Your task to perform on an android device: Open the calendar and show me this week's events? Image 0: 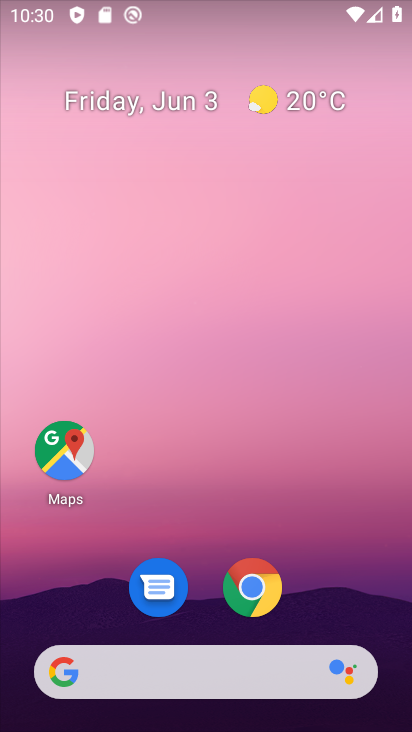
Step 0: drag from (313, 288) to (289, 80)
Your task to perform on an android device: Open the calendar and show me this week's events? Image 1: 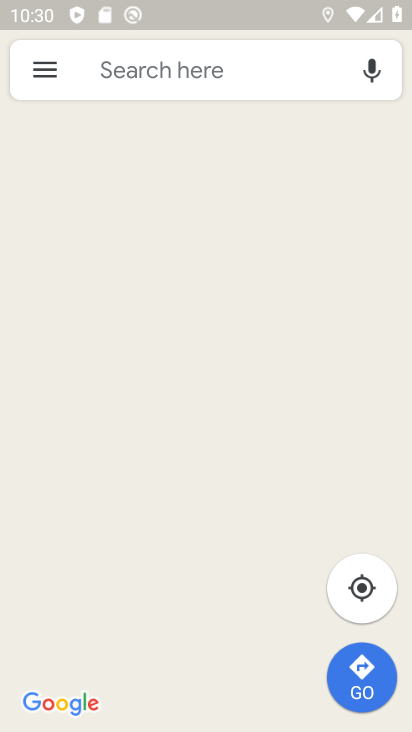
Step 1: press home button
Your task to perform on an android device: Open the calendar and show me this week's events? Image 2: 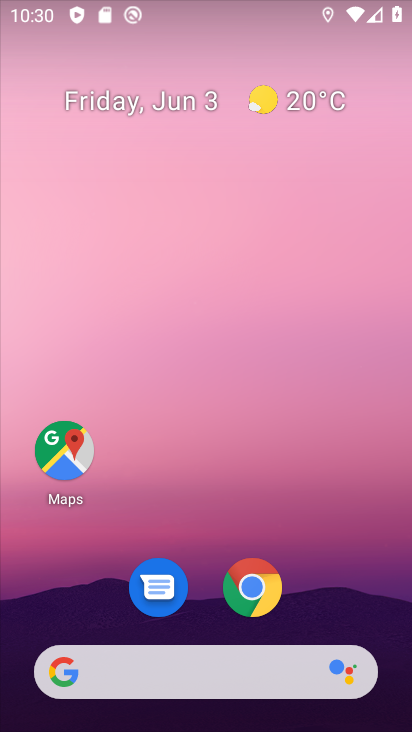
Step 2: drag from (336, 453) to (276, 26)
Your task to perform on an android device: Open the calendar and show me this week's events? Image 3: 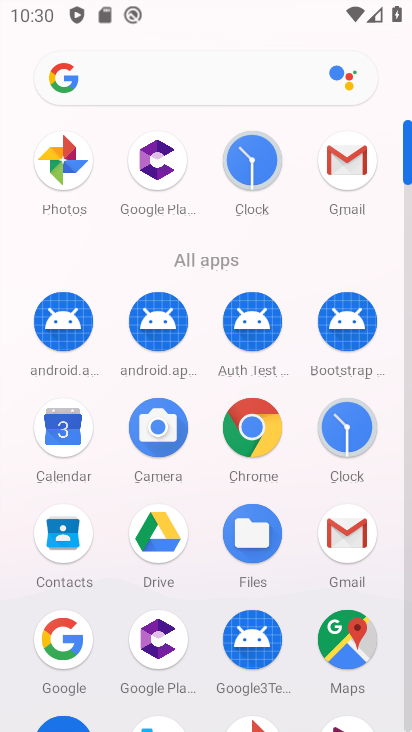
Step 3: click (74, 428)
Your task to perform on an android device: Open the calendar and show me this week's events? Image 4: 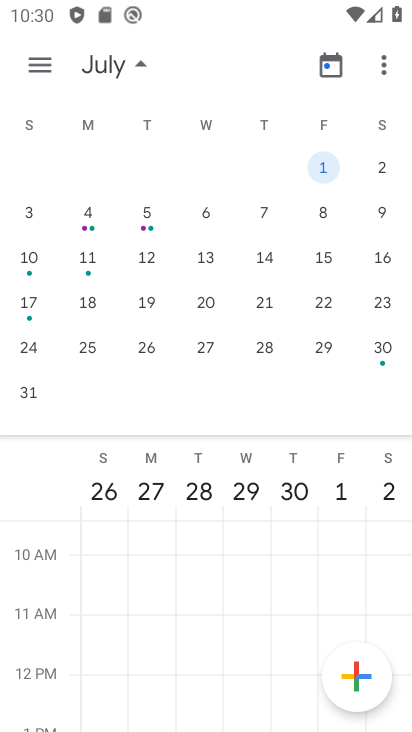
Step 4: task complete